Your task to perform on an android device: turn notification dots on Image 0: 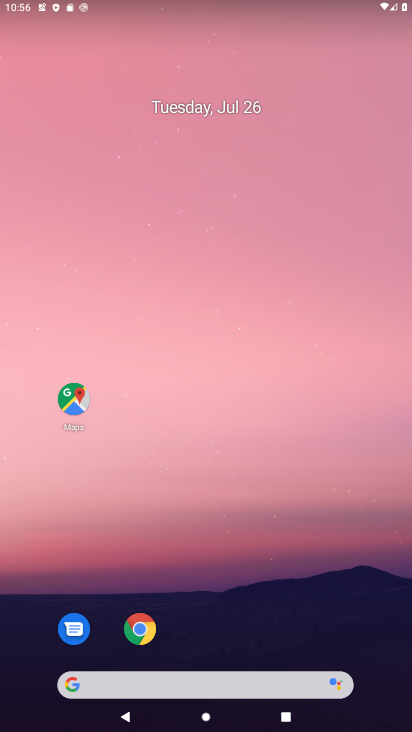
Step 0: drag from (169, 417) to (158, 15)
Your task to perform on an android device: turn notification dots on Image 1: 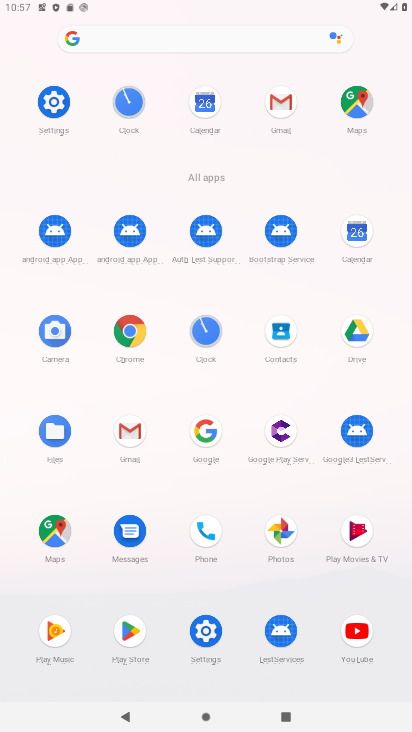
Step 1: click (49, 111)
Your task to perform on an android device: turn notification dots on Image 2: 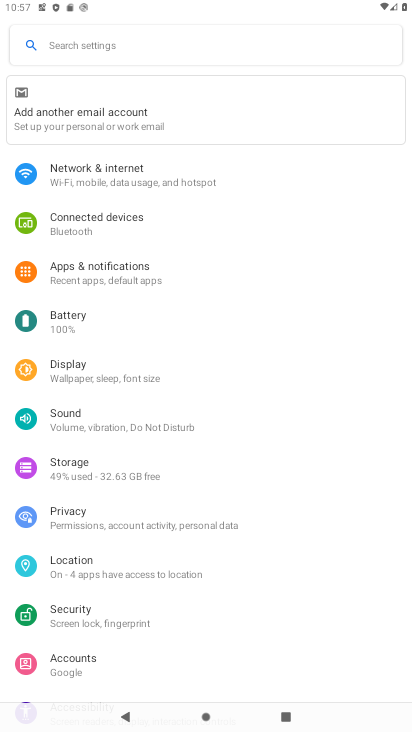
Step 2: click (96, 279)
Your task to perform on an android device: turn notification dots on Image 3: 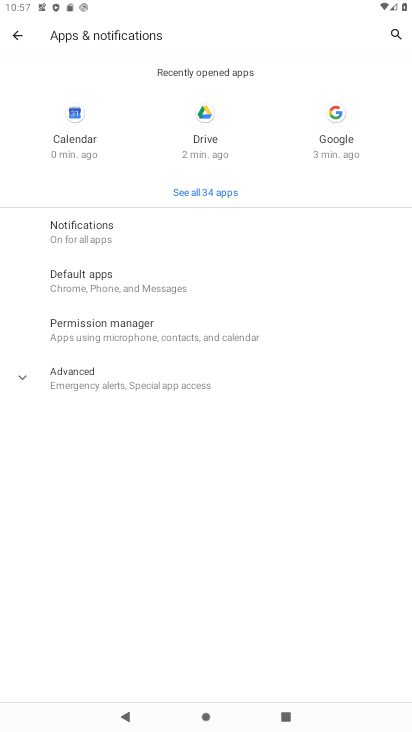
Step 3: click (78, 240)
Your task to perform on an android device: turn notification dots on Image 4: 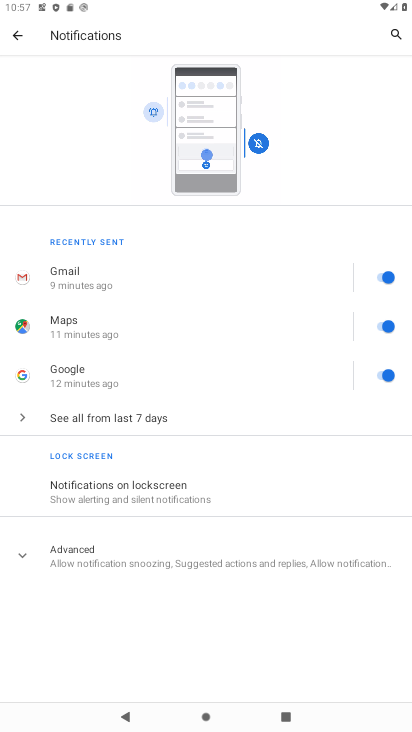
Step 4: click (76, 563)
Your task to perform on an android device: turn notification dots on Image 5: 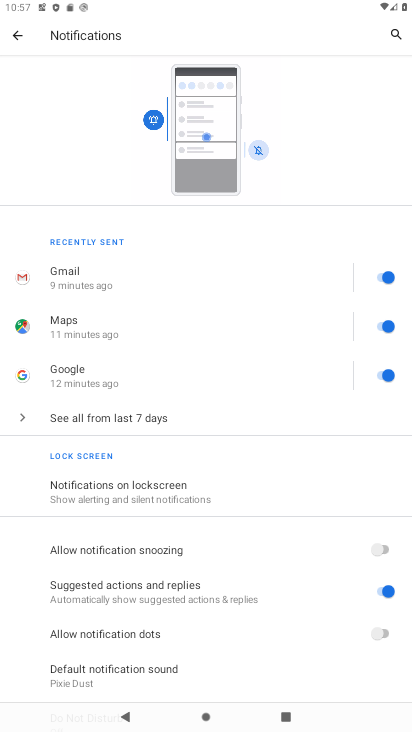
Step 5: click (391, 628)
Your task to perform on an android device: turn notification dots on Image 6: 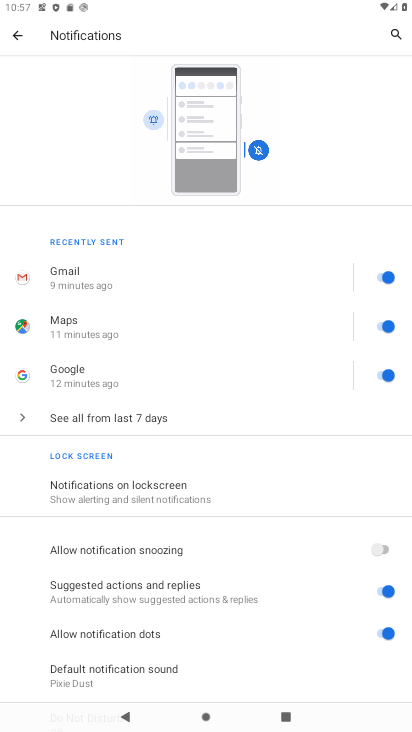
Step 6: task complete